Your task to perform on an android device: Open Google Chrome and click the shortcut for Amazon.com Image 0: 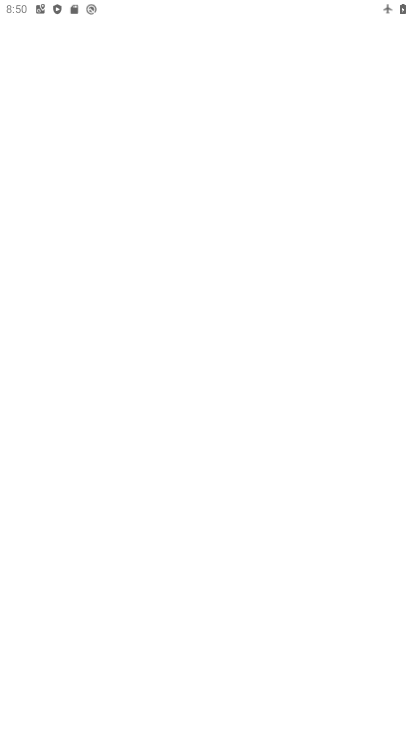
Step 0: press home button
Your task to perform on an android device: Open Google Chrome and click the shortcut for Amazon.com Image 1: 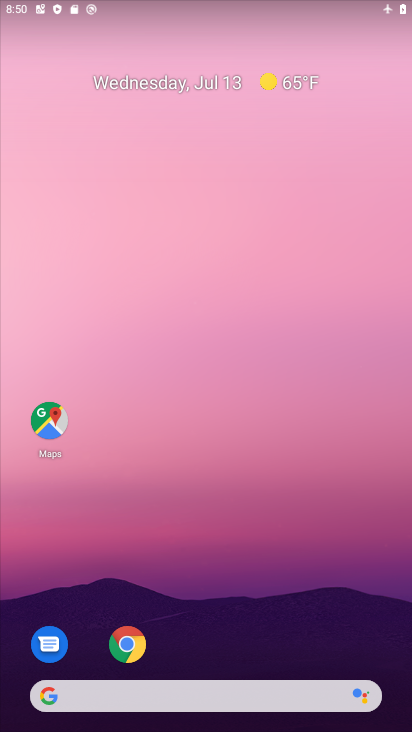
Step 1: drag from (318, 578) to (407, 298)
Your task to perform on an android device: Open Google Chrome and click the shortcut for Amazon.com Image 2: 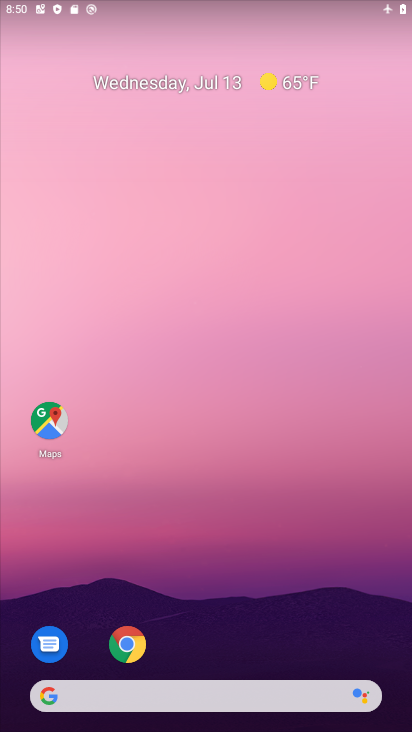
Step 2: drag from (200, 404) to (142, 152)
Your task to perform on an android device: Open Google Chrome and click the shortcut for Amazon.com Image 3: 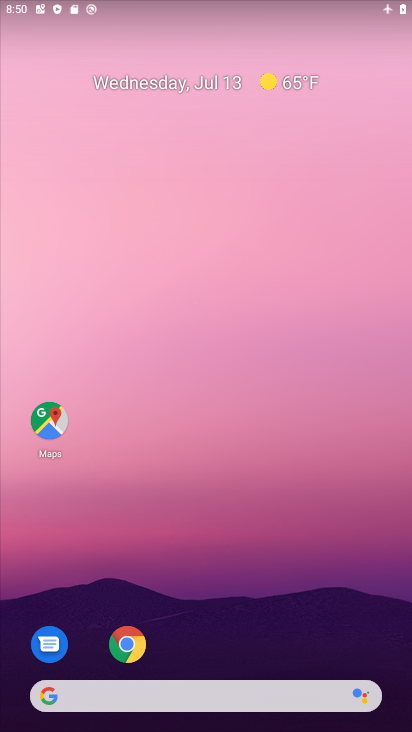
Step 3: drag from (175, 625) to (122, 84)
Your task to perform on an android device: Open Google Chrome and click the shortcut for Amazon.com Image 4: 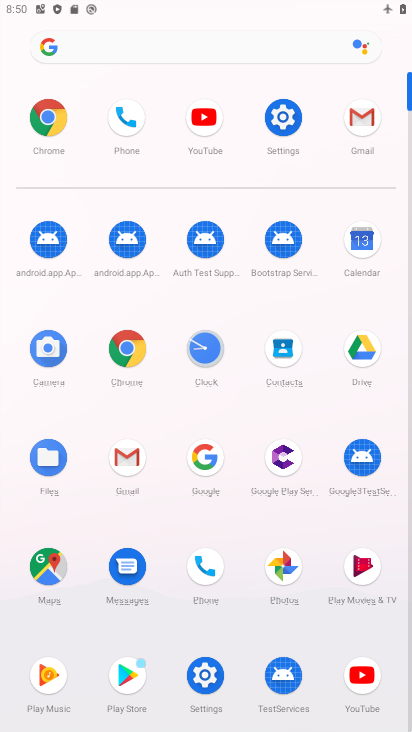
Step 4: click (130, 354)
Your task to perform on an android device: Open Google Chrome and click the shortcut for Amazon.com Image 5: 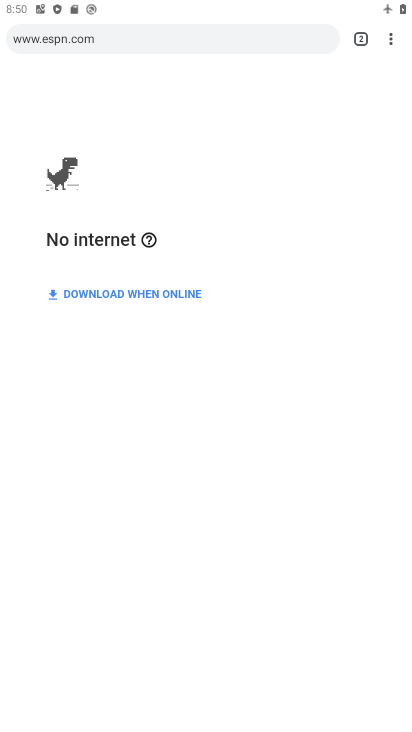
Step 5: task complete